Your task to perform on an android device: open app "eBay: The shopping marketplace" Image 0: 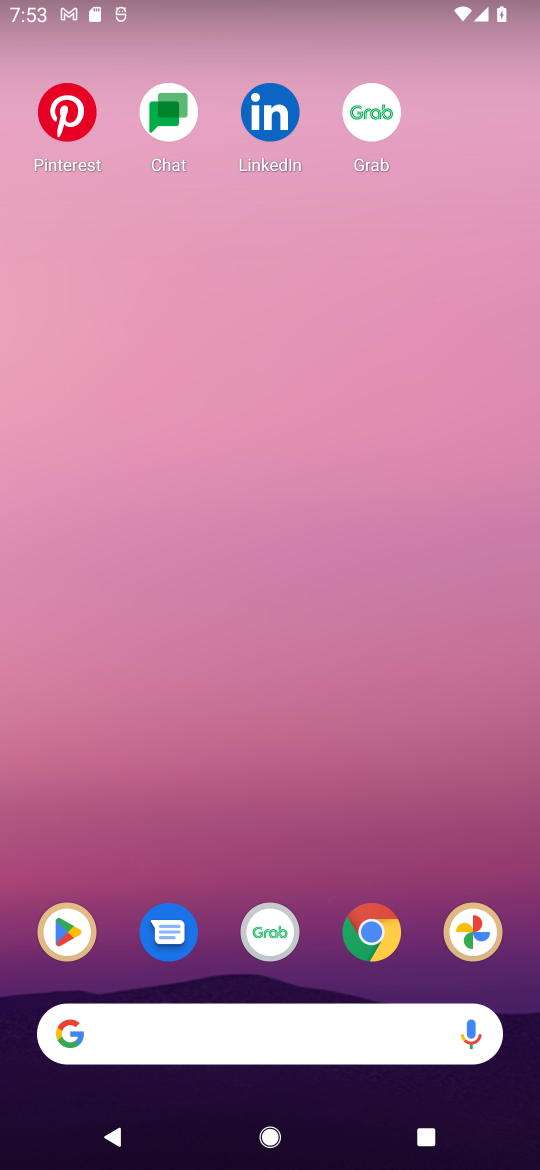
Step 0: click (56, 926)
Your task to perform on an android device: open app "eBay: The shopping marketplace" Image 1: 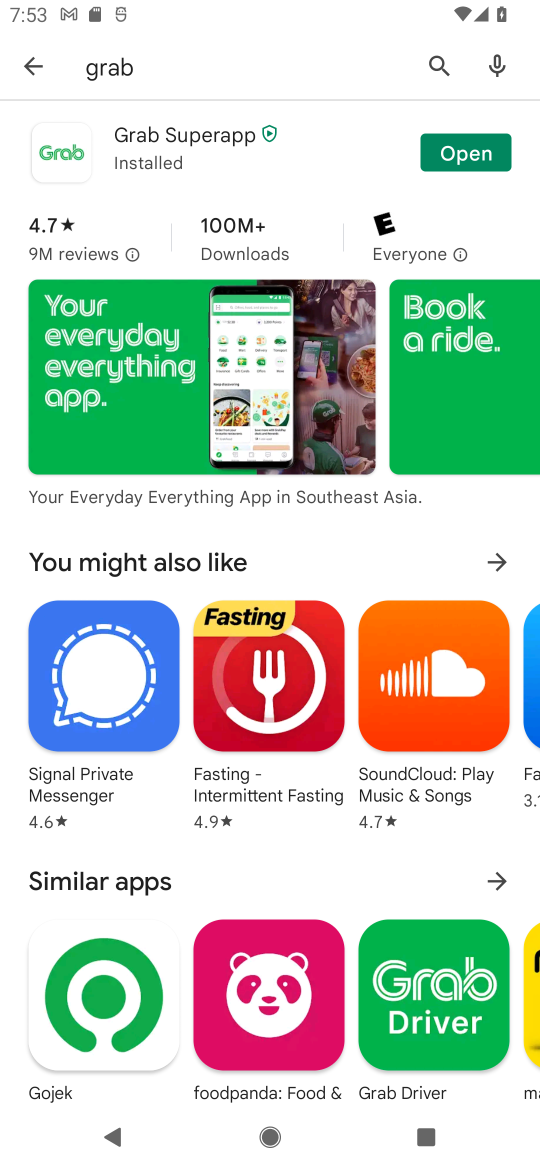
Step 1: click (145, 64)
Your task to perform on an android device: open app "eBay: The shopping marketplace" Image 2: 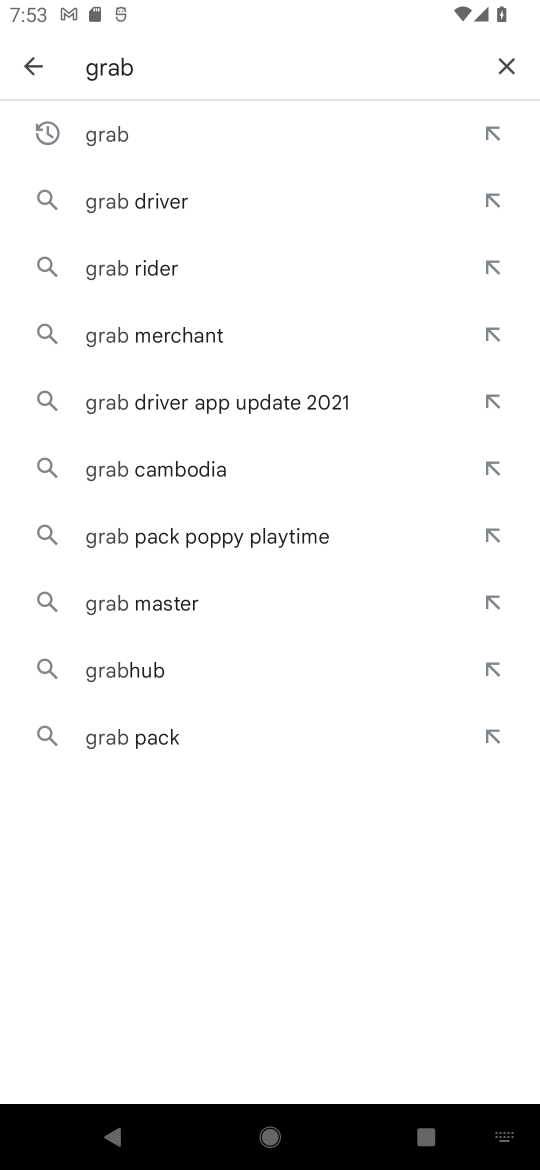
Step 2: click (224, 85)
Your task to perform on an android device: open app "eBay: The shopping marketplace" Image 3: 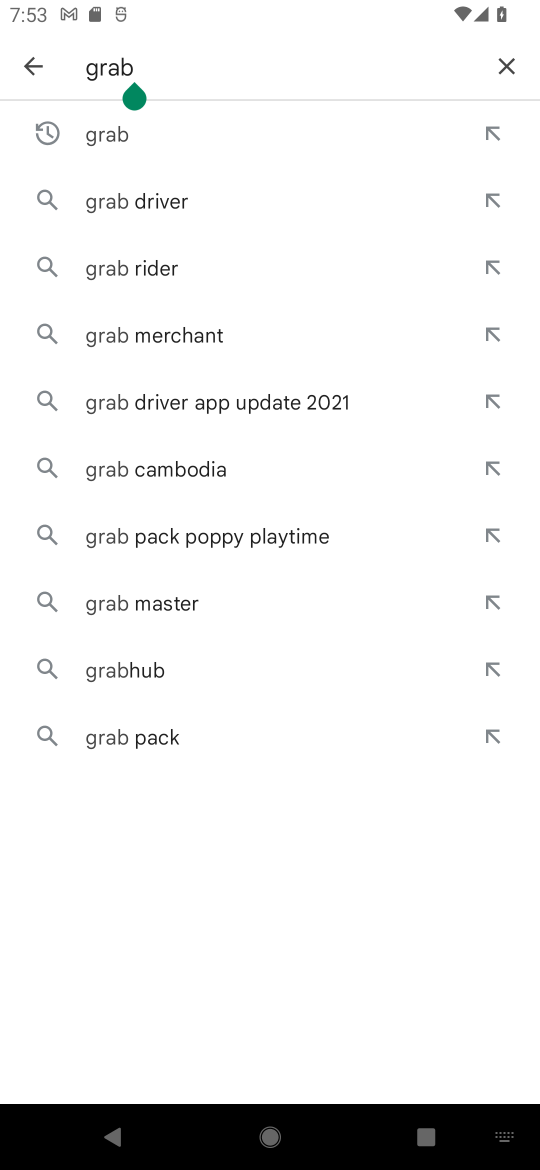
Step 3: click (515, 83)
Your task to perform on an android device: open app "eBay: The shopping marketplace" Image 4: 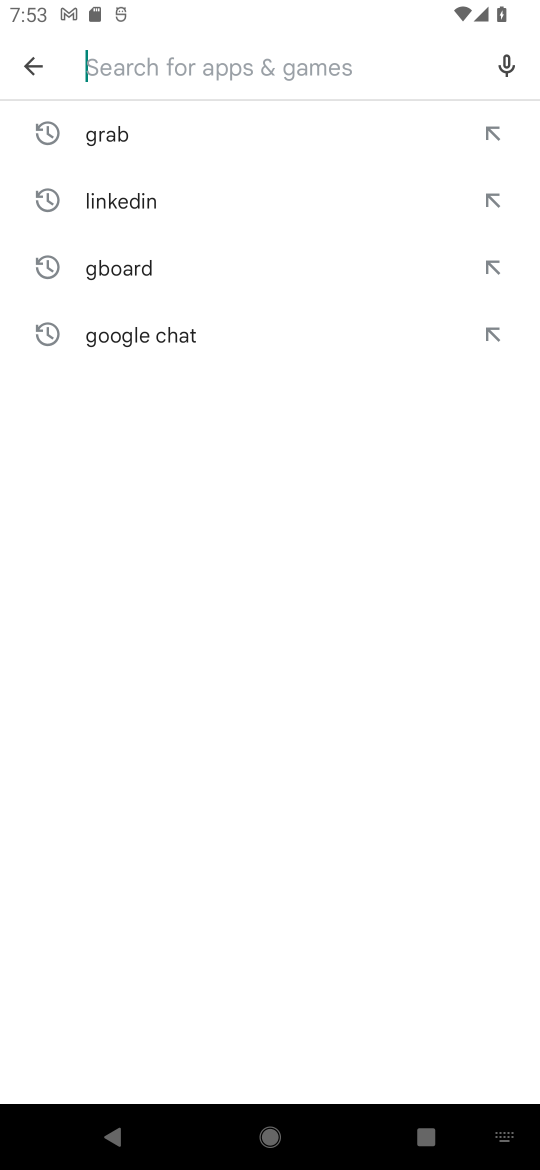
Step 4: type "ebay"
Your task to perform on an android device: open app "eBay: The shopping marketplace" Image 5: 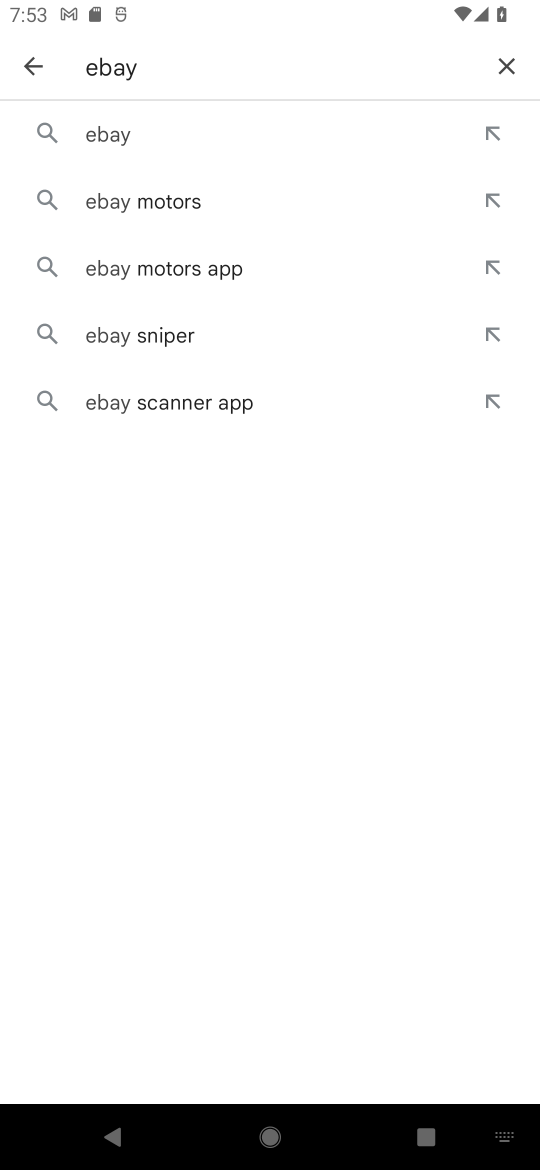
Step 5: click (104, 142)
Your task to perform on an android device: open app "eBay: The shopping marketplace" Image 6: 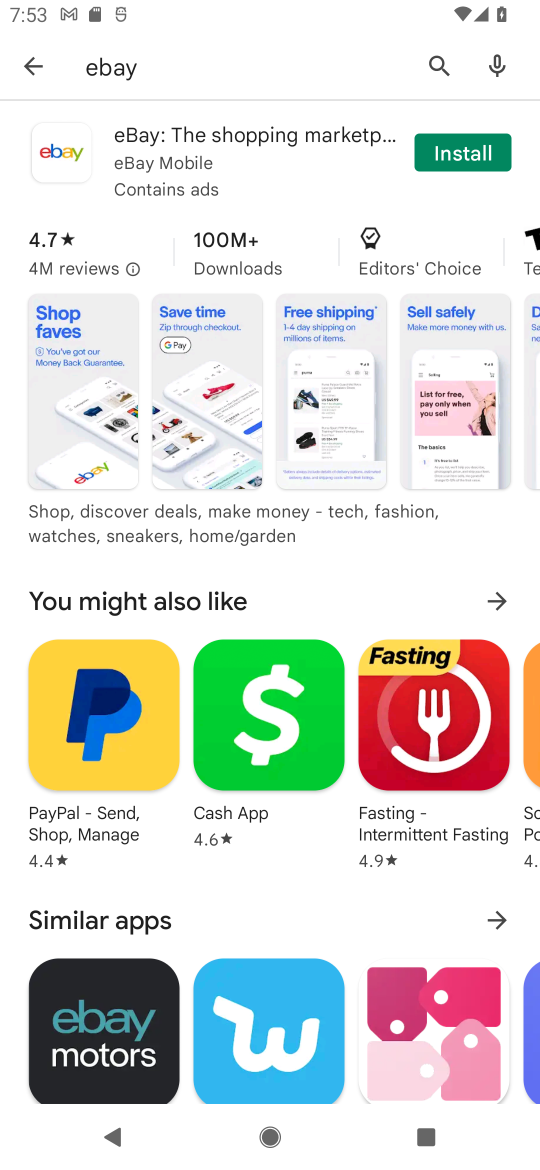
Step 6: task complete